Your task to perform on an android device: Go to calendar. Show me events next week Image 0: 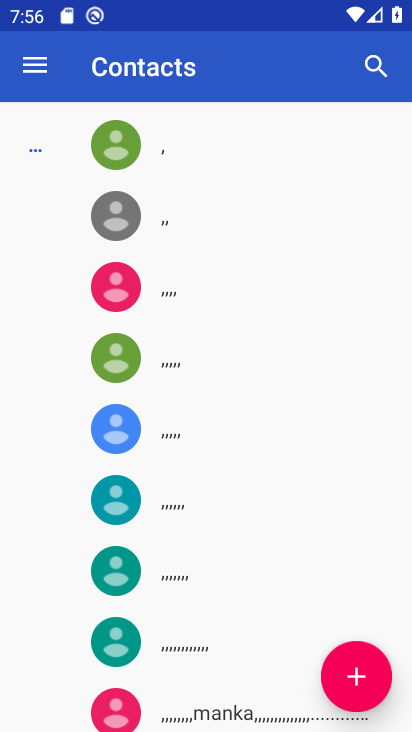
Step 0: press home button
Your task to perform on an android device: Go to calendar. Show me events next week Image 1: 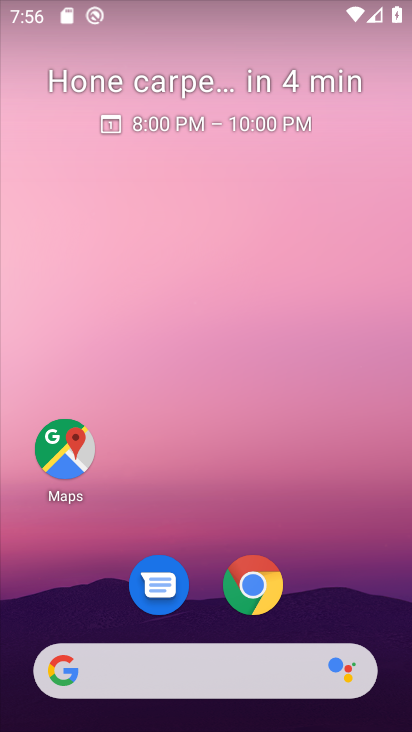
Step 1: drag from (239, 471) to (220, 48)
Your task to perform on an android device: Go to calendar. Show me events next week Image 2: 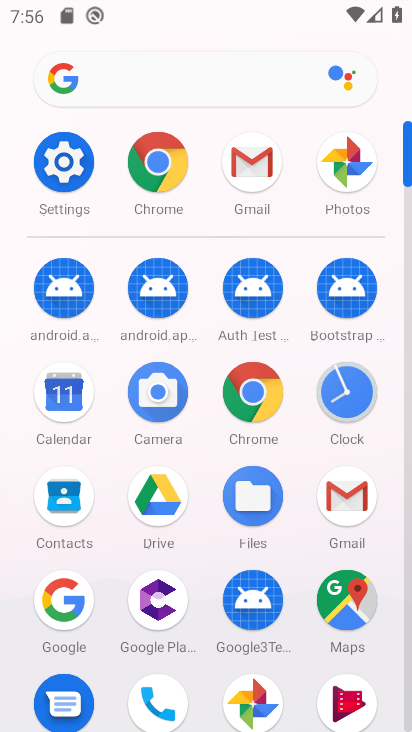
Step 2: click (79, 392)
Your task to perform on an android device: Go to calendar. Show me events next week Image 3: 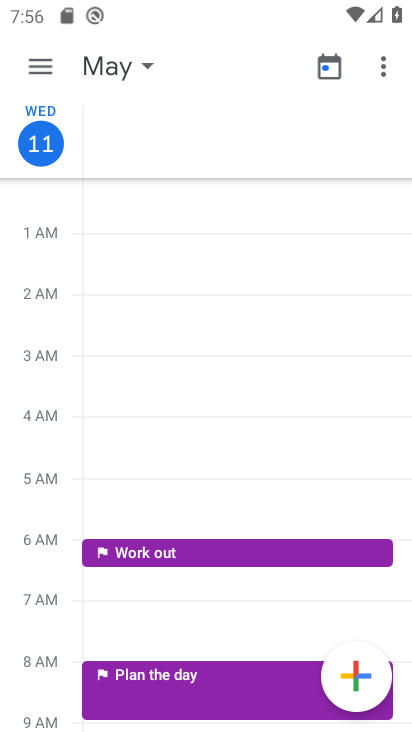
Step 3: click (40, 53)
Your task to perform on an android device: Go to calendar. Show me events next week Image 4: 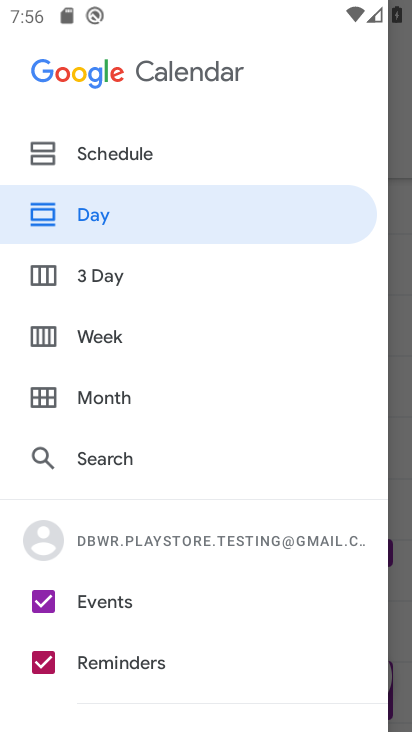
Step 4: click (48, 336)
Your task to perform on an android device: Go to calendar. Show me events next week Image 5: 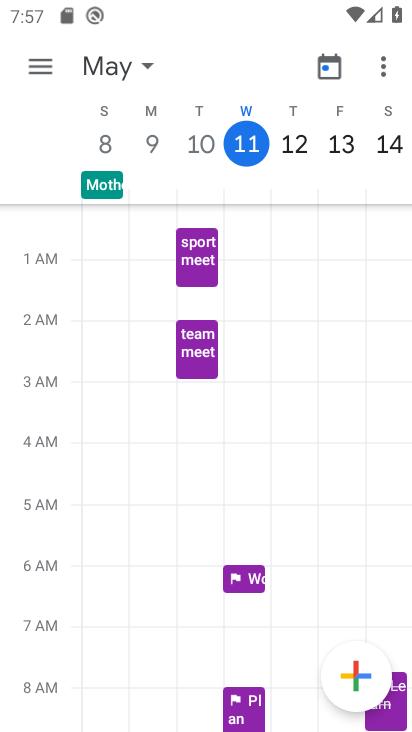
Step 5: task complete